Your task to perform on an android device: Open Google Chrome and open the bookmarks view Image 0: 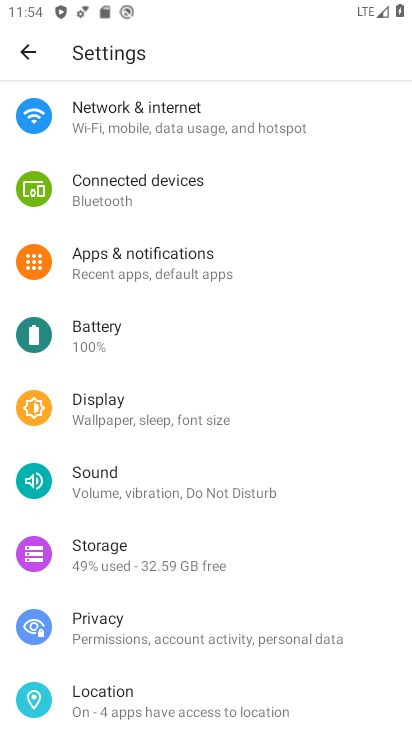
Step 0: press back button
Your task to perform on an android device: Open Google Chrome and open the bookmarks view Image 1: 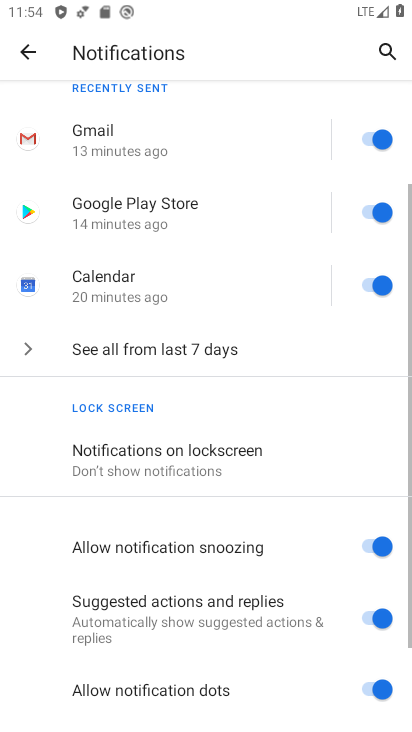
Step 1: press back button
Your task to perform on an android device: Open Google Chrome and open the bookmarks view Image 2: 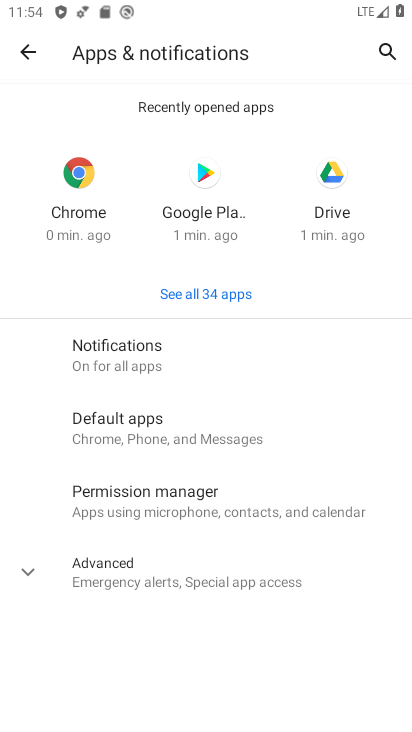
Step 2: press back button
Your task to perform on an android device: Open Google Chrome and open the bookmarks view Image 3: 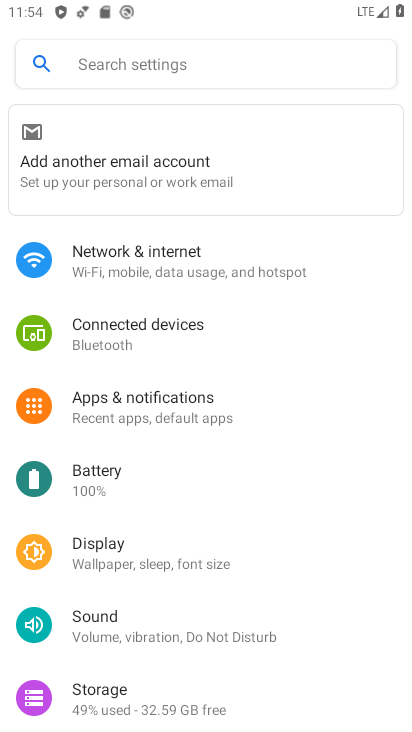
Step 3: press back button
Your task to perform on an android device: Open Google Chrome and open the bookmarks view Image 4: 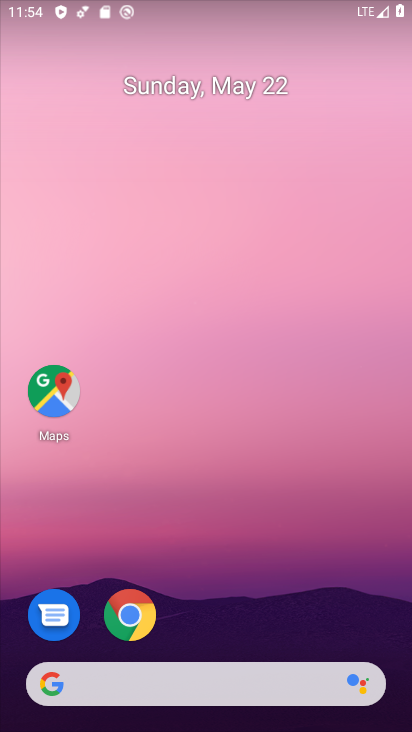
Step 4: click (127, 609)
Your task to perform on an android device: Open Google Chrome and open the bookmarks view Image 5: 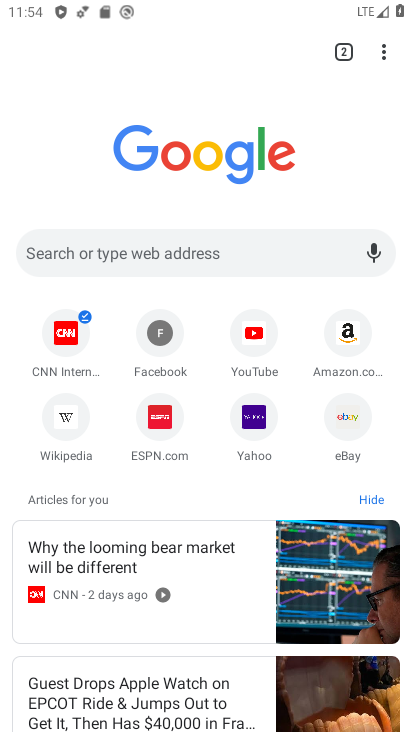
Step 5: task complete